Your task to perform on an android device: add a contact in the contacts app Image 0: 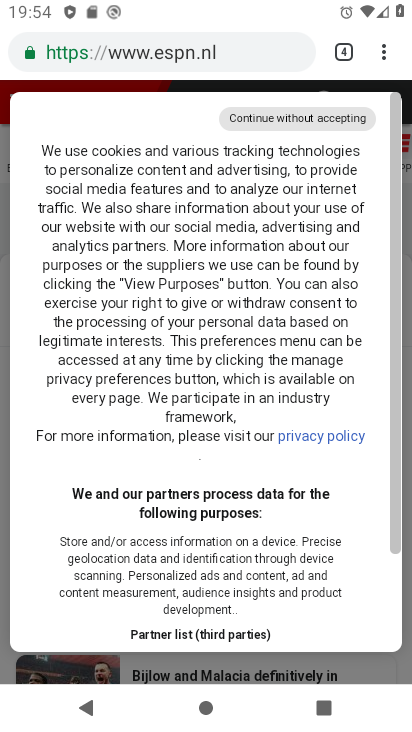
Step 0: press home button
Your task to perform on an android device: add a contact in the contacts app Image 1: 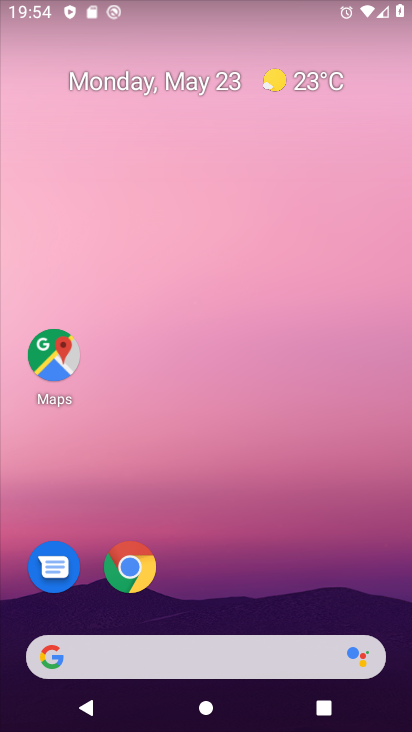
Step 1: drag from (253, 602) to (226, 253)
Your task to perform on an android device: add a contact in the contacts app Image 2: 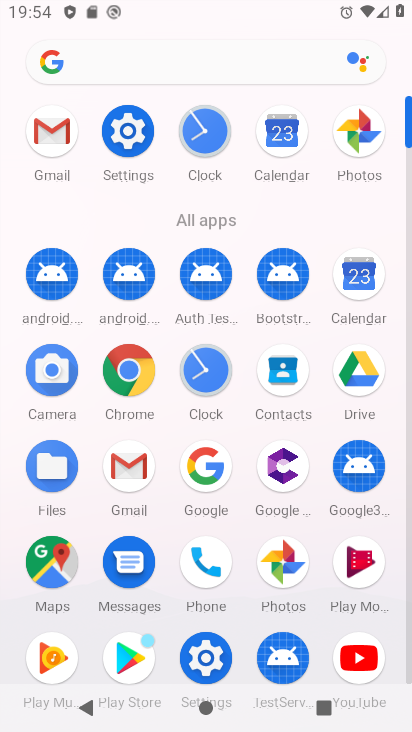
Step 2: click (220, 566)
Your task to perform on an android device: add a contact in the contacts app Image 3: 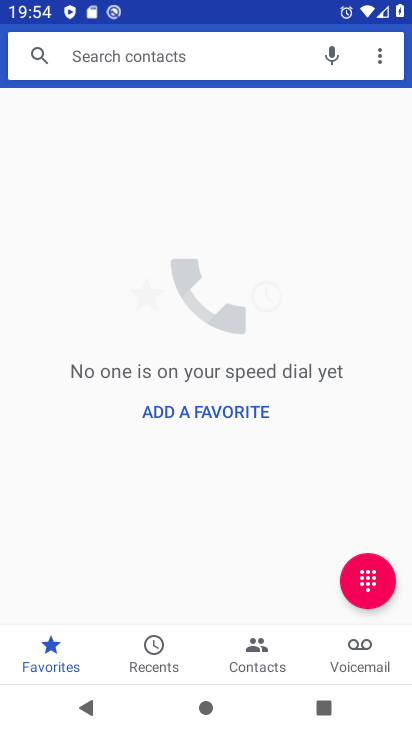
Step 3: click (265, 632)
Your task to perform on an android device: add a contact in the contacts app Image 4: 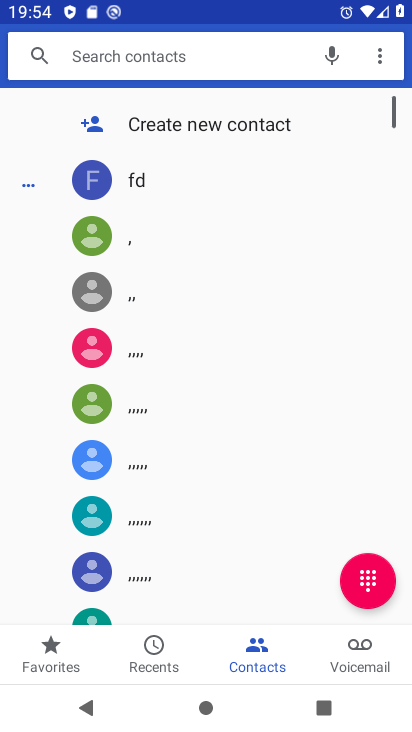
Step 4: click (227, 116)
Your task to perform on an android device: add a contact in the contacts app Image 5: 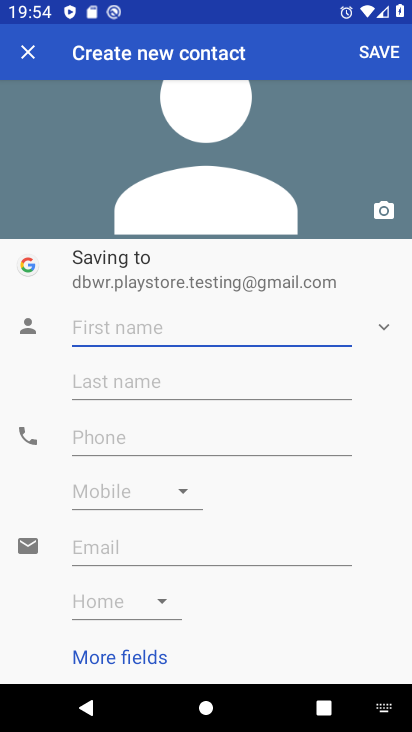
Step 5: type "amit rawal"
Your task to perform on an android device: add a contact in the contacts app Image 6: 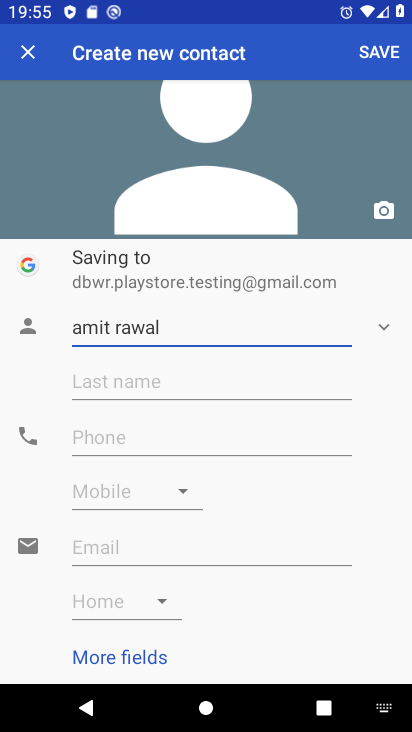
Step 6: click (130, 424)
Your task to perform on an android device: add a contact in the contacts app Image 7: 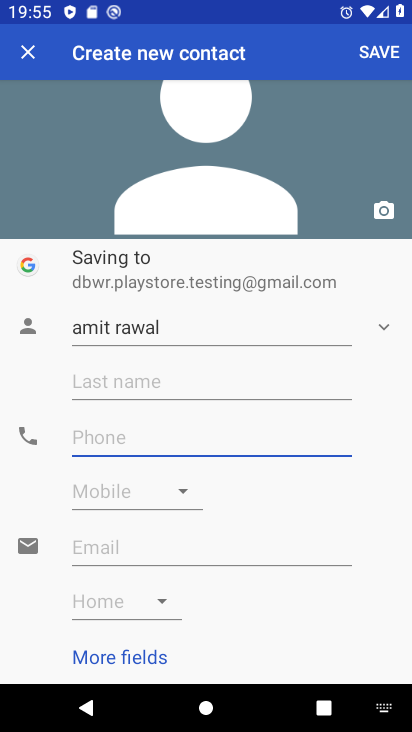
Step 7: type "09876543"
Your task to perform on an android device: add a contact in the contacts app Image 8: 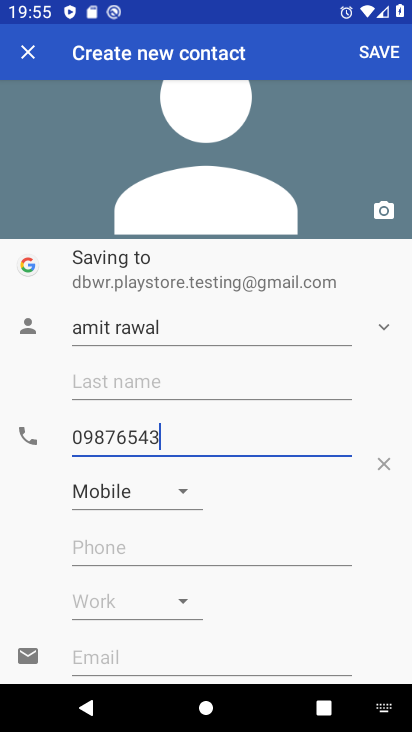
Step 8: click (375, 44)
Your task to perform on an android device: add a contact in the contacts app Image 9: 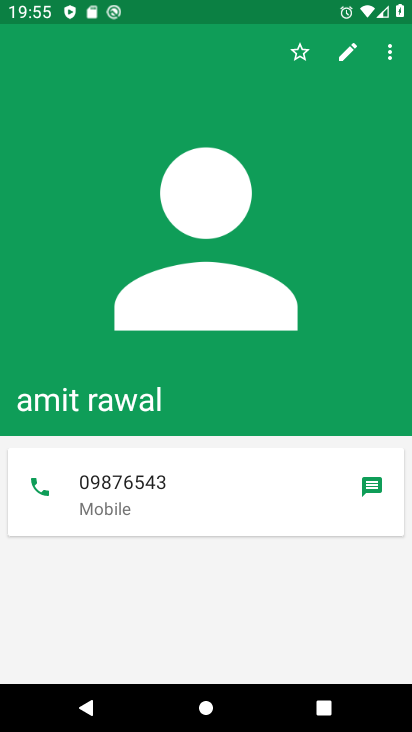
Step 9: task complete